Your task to perform on an android device: toggle sleep mode Image 0: 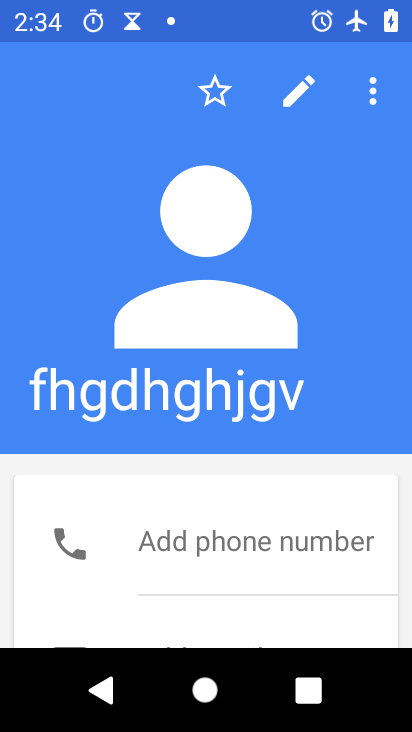
Step 0: press home button
Your task to perform on an android device: toggle sleep mode Image 1: 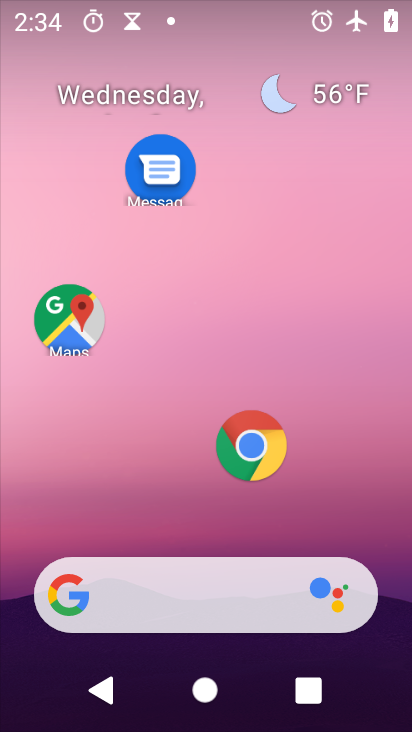
Step 1: drag from (172, 485) to (268, 107)
Your task to perform on an android device: toggle sleep mode Image 2: 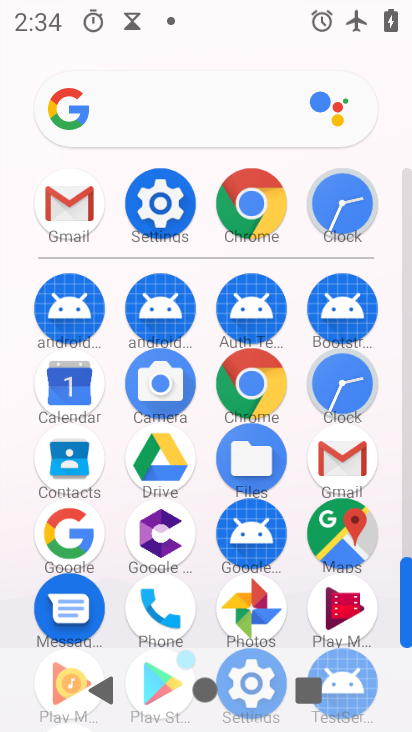
Step 2: drag from (197, 265) to (197, 118)
Your task to perform on an android device: toggle sleep mode Image 3: 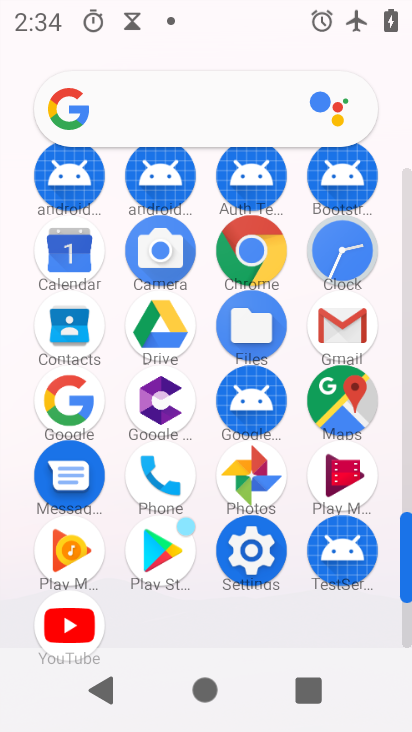
Step 3: click (247, 569)
Your task to perform on an android device: toggle sleep mode Image 4: 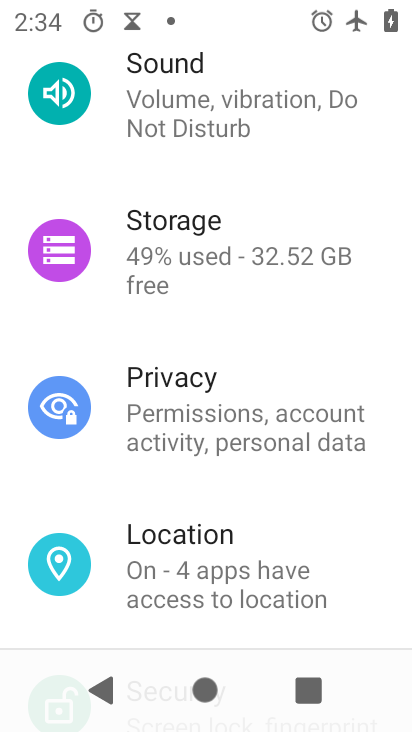
Step 4: task complete